Your task to perform on an android device: Open sound settings Image 0: 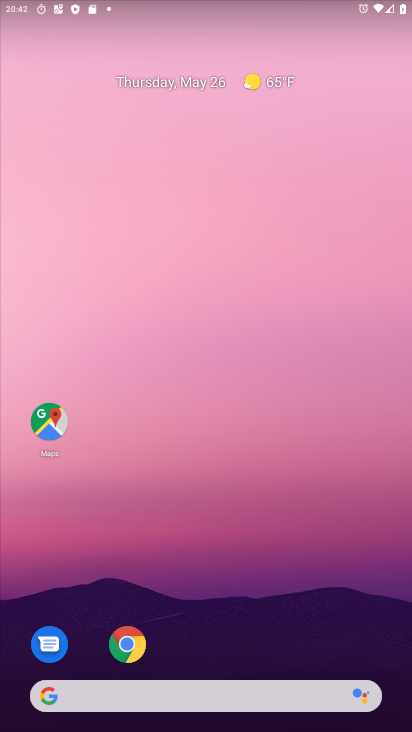
Step 0: drag from (190, 606) to (195, 242)
Your task to perform on an android device: Open sound settings Image 1: 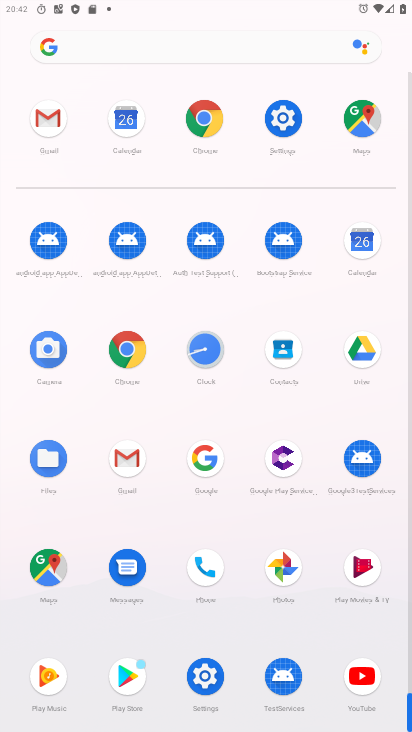
Step 1: click (284, 122)
Your task to perform on an android device: Open sound settings Image 2: 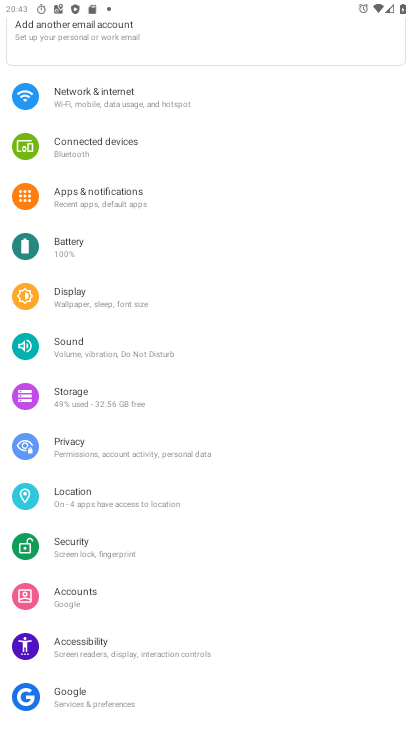
Step 2: click (71, 365)
Your task to perform on an android device: Open sound settings Image 3: 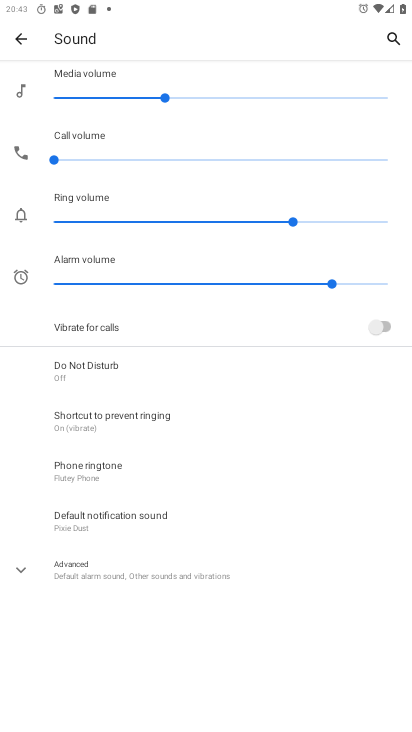
Step 3: task complete